Your task to perform on an android device: open sync settings in chrome Image 0: 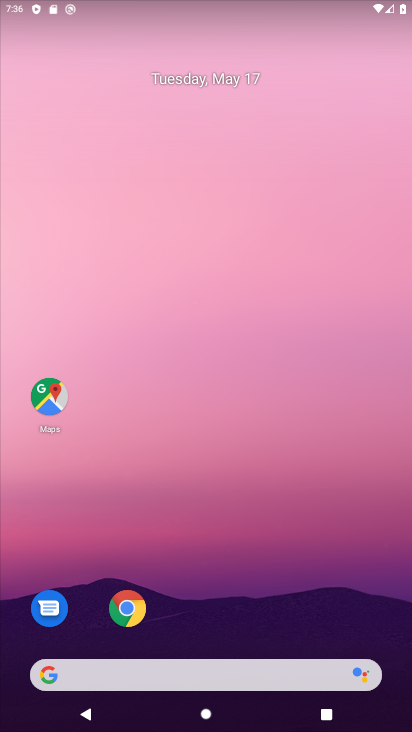
Step 0: click (128, 608)
Your task to perform on an android device: open sync settings in chrome Image 1: 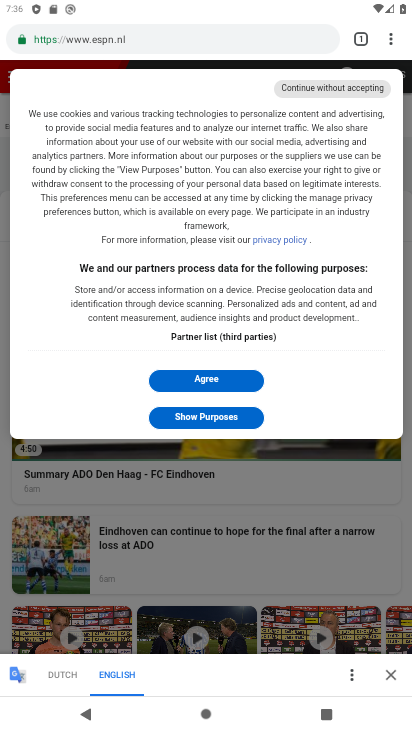
Step 1: click (397, 38)
Your task to perform on an android device: open sync settings in chrome Image 2: 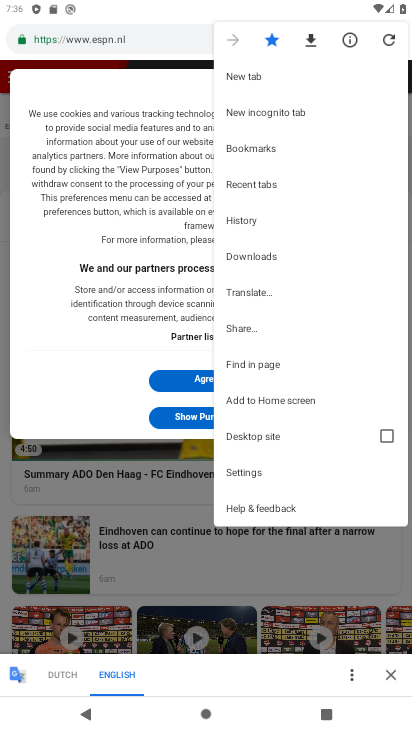
Step 2: click (260, 477)
Your task to perform on an android device: open sync settings in chrome Image 3: 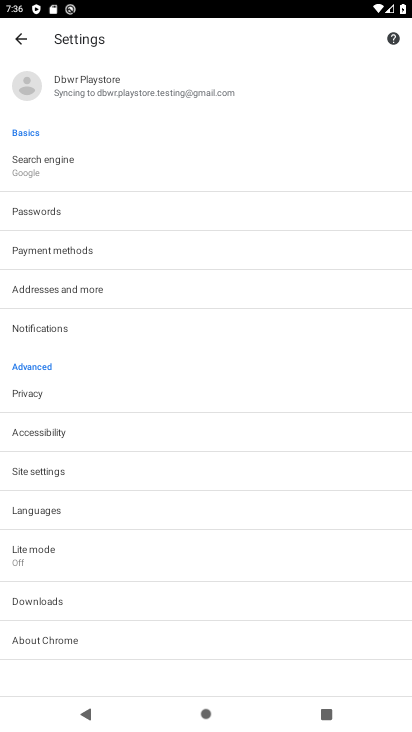
Step 3: click (182, 78)
Your task to perform on an android device: open sync settings in chrome Image 4: 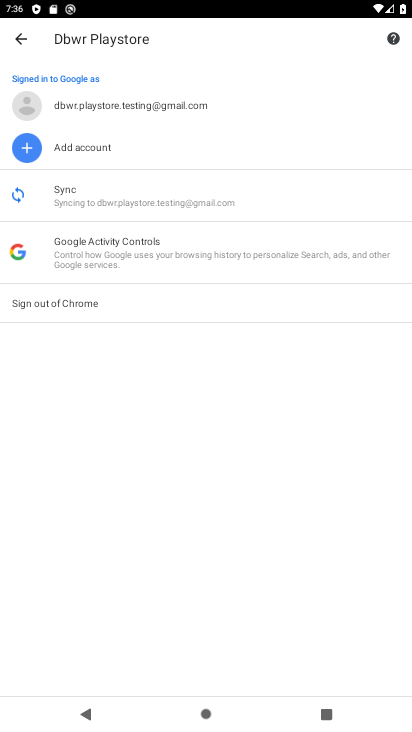
Step 4: click (114, 209)
Your task to perform on an android device: open sync settings in chrome Image 5: 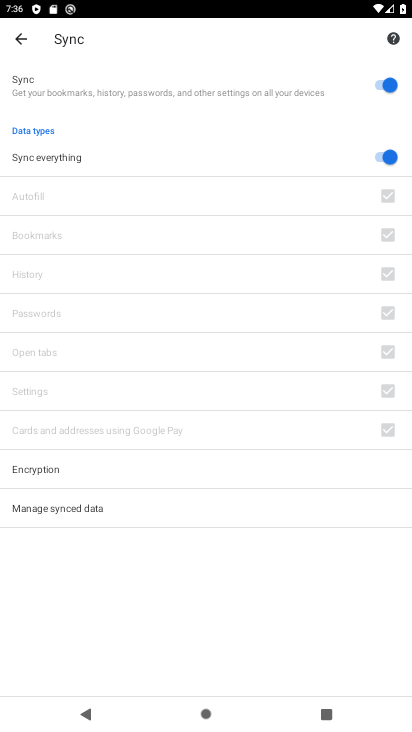
Step 5: task complete